Your task to perform on an android device: turn on the 12-hour format for clock Image 0: 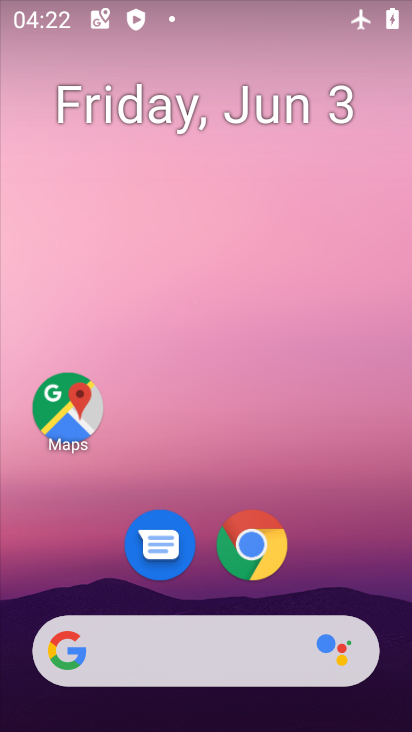
Step 0: drag from (65, 596) to (190, 153)
Your task to perform on an android device: turn on the 12-hour format for clock Image 1: 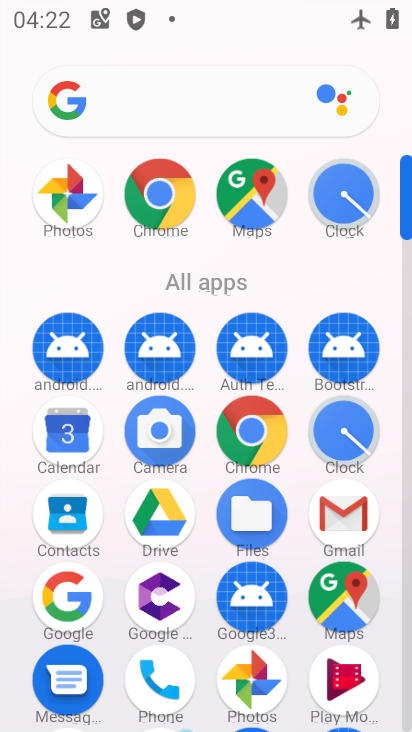
Step 1: click (349, 449)
Your task to perform on an android device: turn on the 12-hour format for clock Image 2: 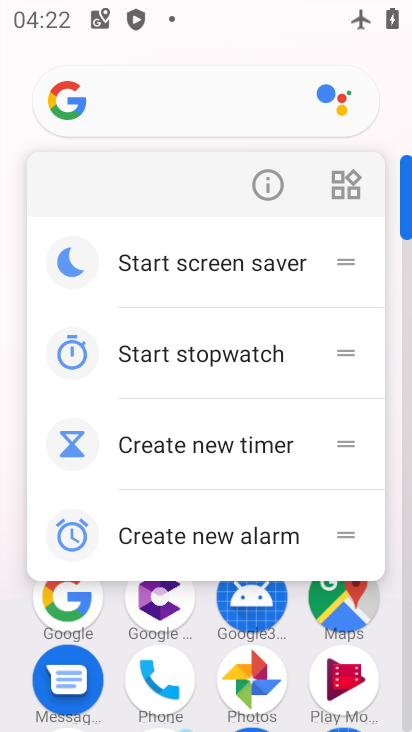
Step 2: press back button
Your task to perform on an android device: turn on the 12-hour format for clock Image 3: 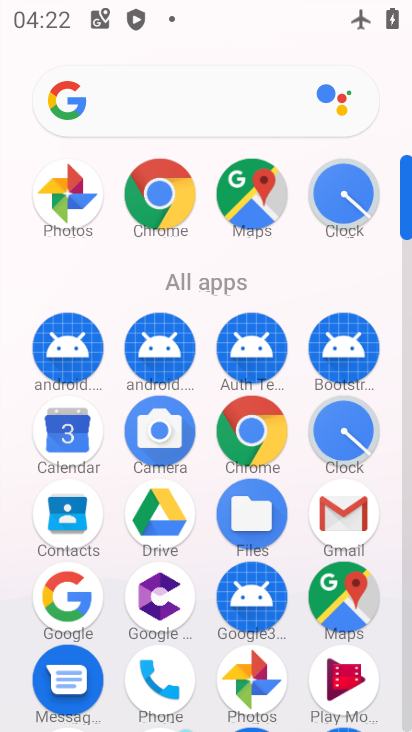
Step 3: click (328, 430)
Your task to perform on an android device: turn on the 12-hour format for clock Image 4: 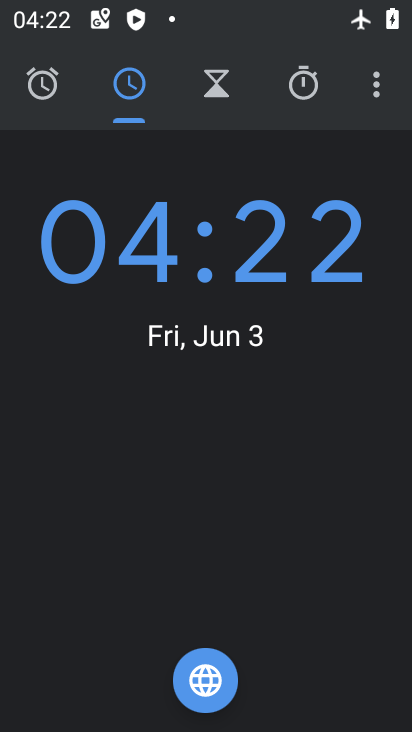
Step 4: click (370, 101)
Your task to perform on an android device: turn on the 12-hour format for clock Image 5: 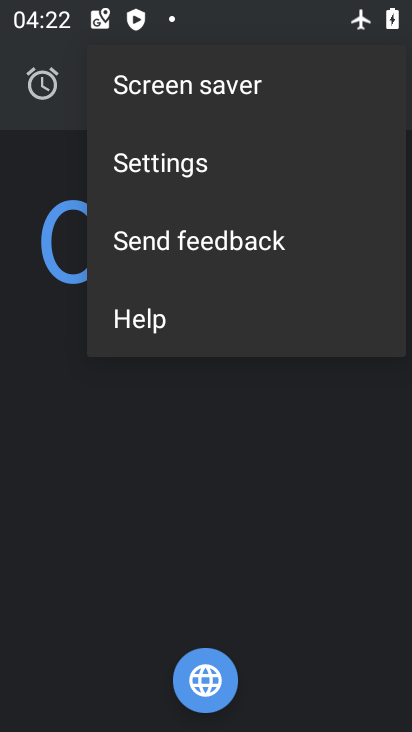
Step 5: click (335, 189)
Your task to perform on an android device: turn on the 12-hour format for clock Image 6: 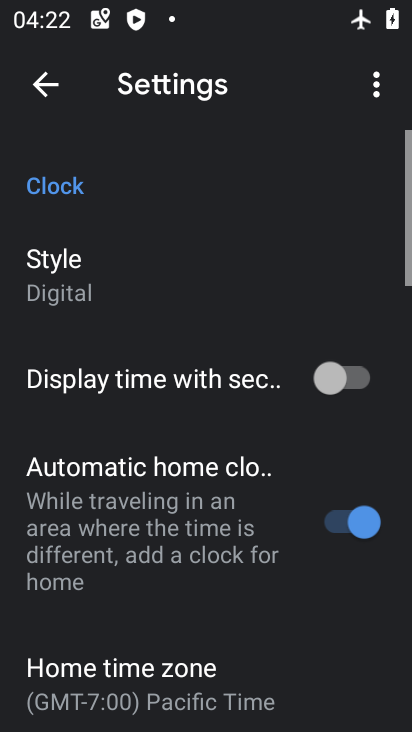
Step 6: drag from (205, 566) to (305, 190)
Your task to perform on an android device: turn on the 12-hour format for clock Image 7: 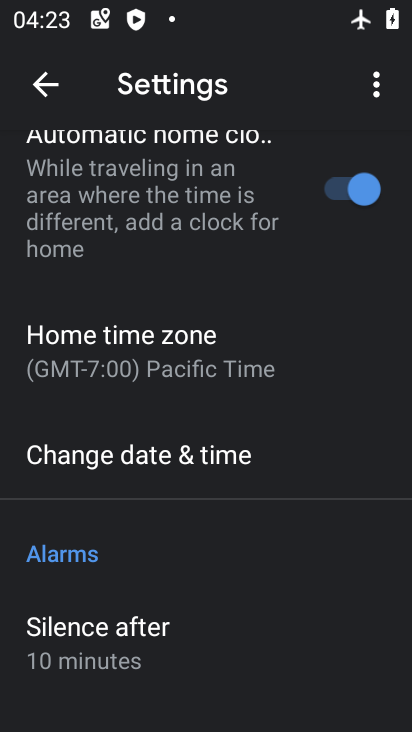
Step 7: click (179, 474)
Your task to perform on an android device: turn on the 12-hour format for clock Image 8: 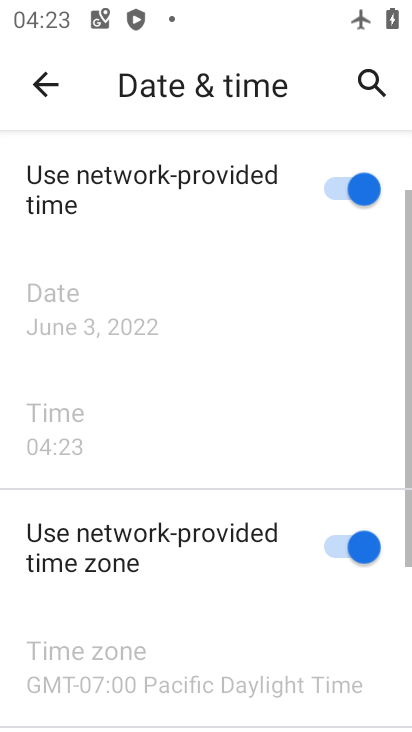
Step 8: drag from (188, 609) to (264, 213)
Your task to perform on an android device: turn on the 12-hour format for clock Image 9: 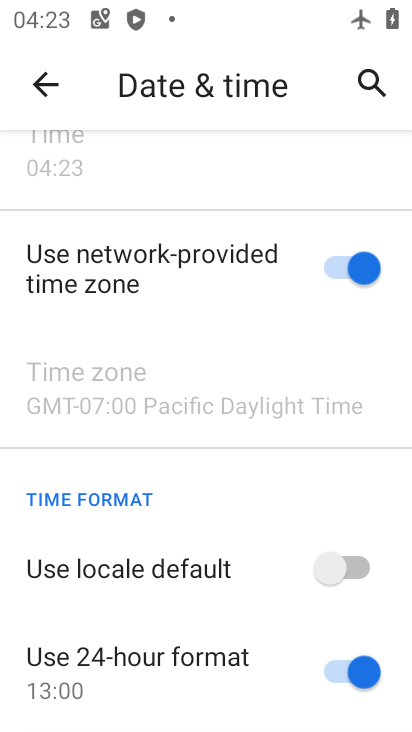
Step 9: click (361, 572)
Your task to perform on an android device: turn on the 12-hour format for clock Image 10: 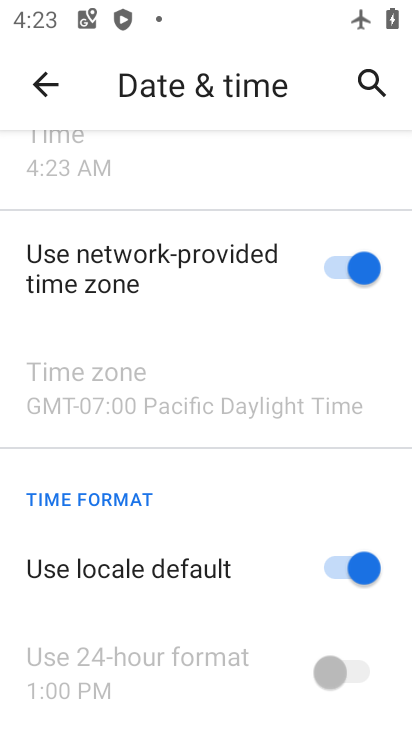
Step 10: task complete